Your task to perform on an android device: Open Chrome and go to the settings page Image 0: 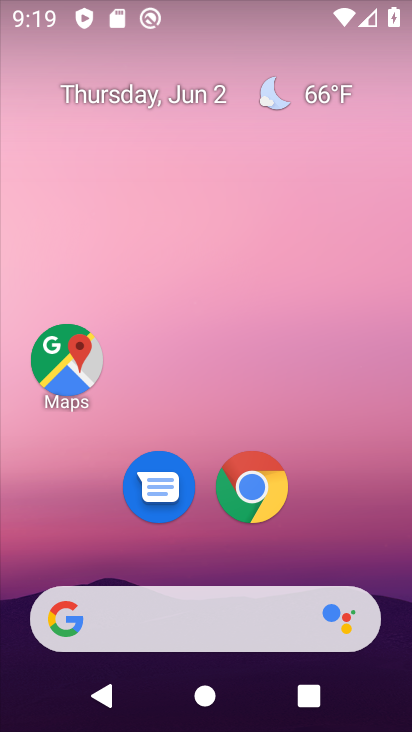
Step 0: click (255, 486)
Your task to perform on an android device: Open Chrome and go to the settings page Image 1: 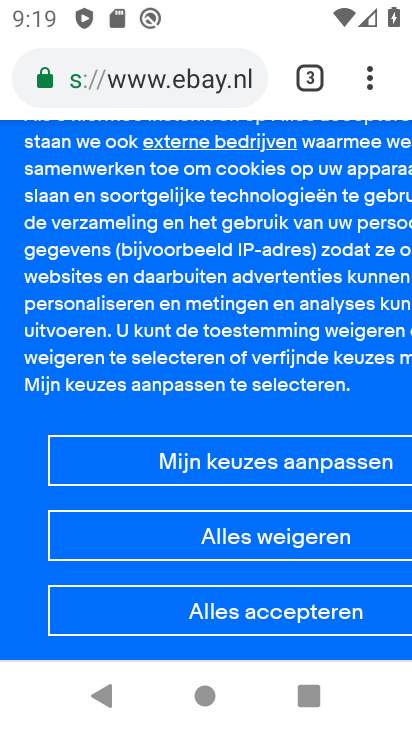
Step 1: click (372, 88)
Your task to perform on an android device: Open Chrome and go to the settings page Image 2: 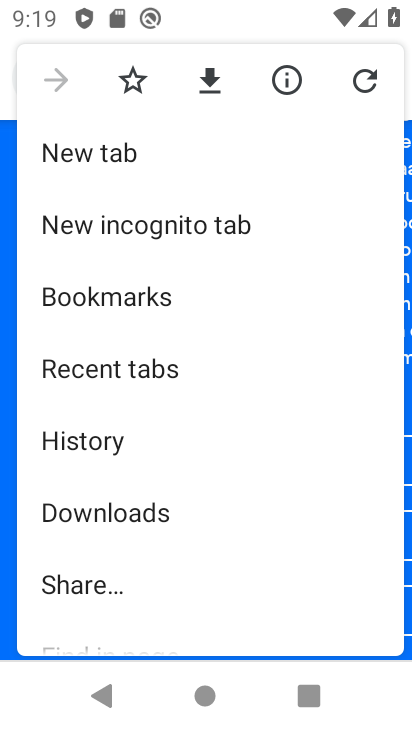
Step 2: drag from (76, 620) to (81, 235)
Your task to perform on an android device: Open Chrome and go to the settings page Image 3: 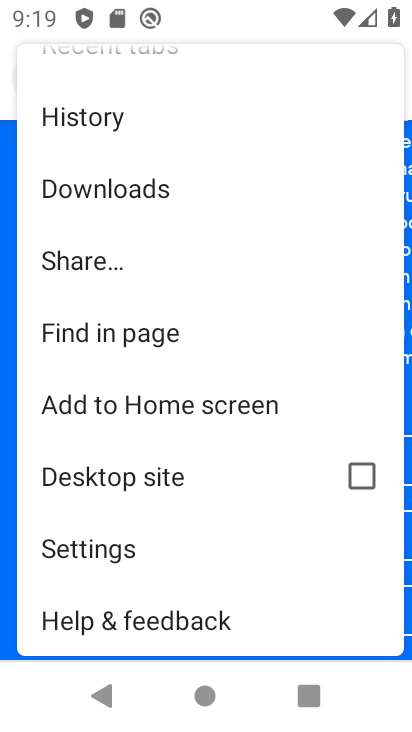
Step 3: click (119, 548)
Your task to perform on an android device: Open Chrome and go to the settings page Image 4: 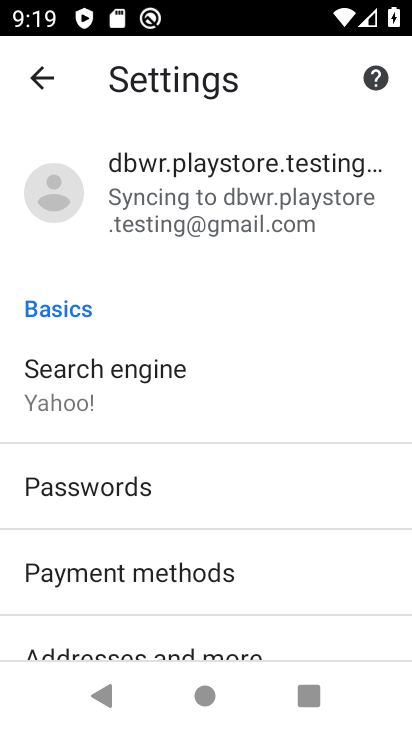
Step 4: task complete